Your task to perform on an android device: see creations saved in the google photos Image 0: 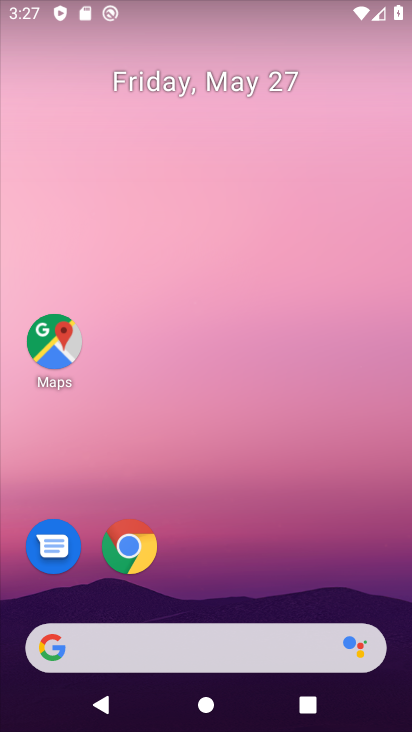
Step 0: drag from (402, 618) to (393, 212)
Your task to perform on an android device: see creations saved in the google photos Image 1: 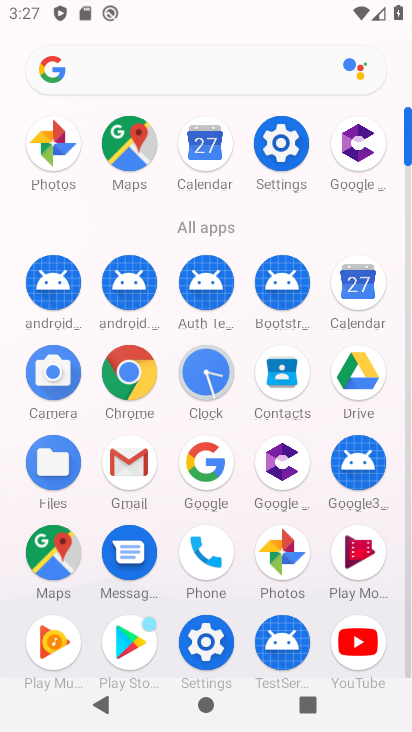
Step 1: click (294, 556)
Your task to perform on an android device: see creations saved in the google photos Image 2: 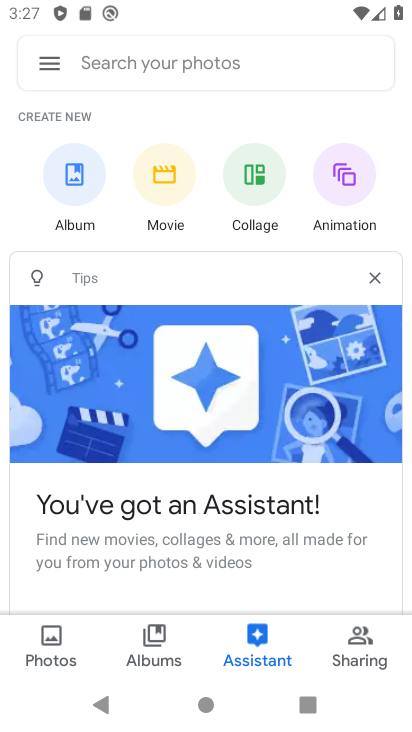
Step 2: click (52, 647)
Your task to perform on an android device: see creations saved in the google photos Image 3: 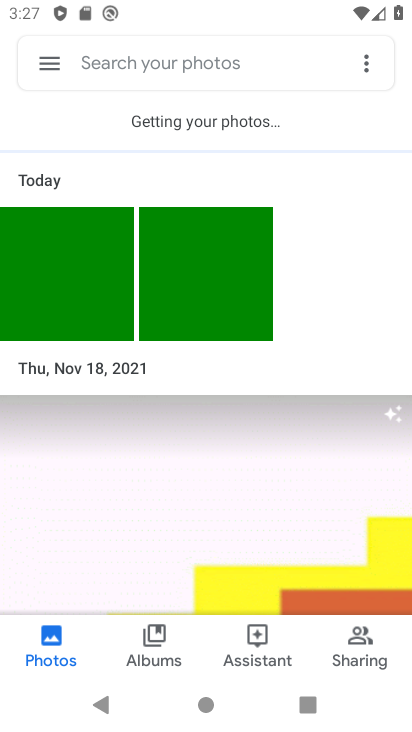
Step 3: click (80, 288)
Your task to perform on an android device: see creations saved in the google photos Image 4: 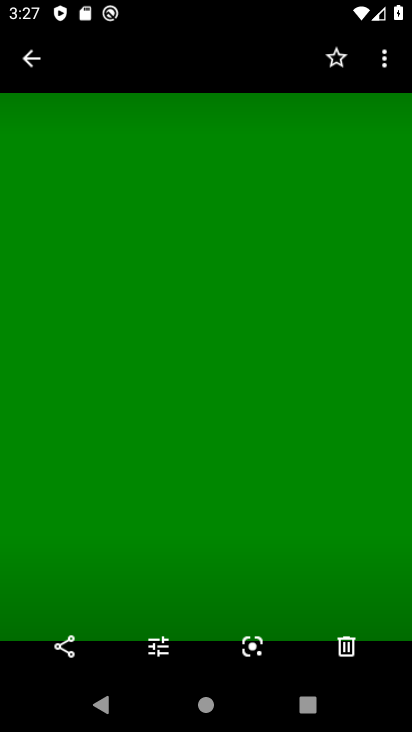
Step 4: click (401, 284)
Your task to perform on an android device: see creations saved in the google photos Image 5: 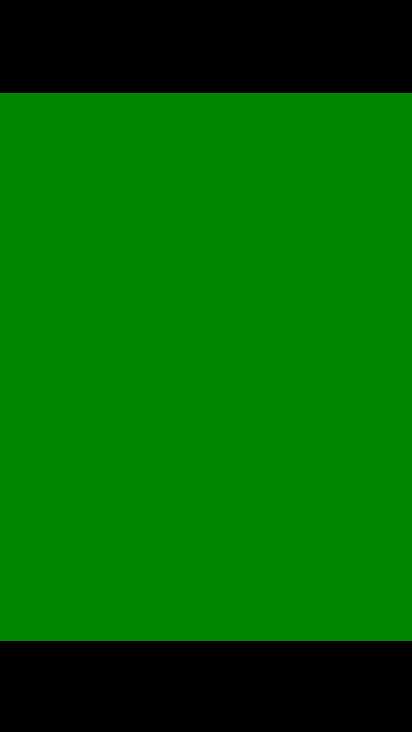
Step 5: click (400, 283)
Your task to perform on an android device: see creations saved in the google photos Image 6: 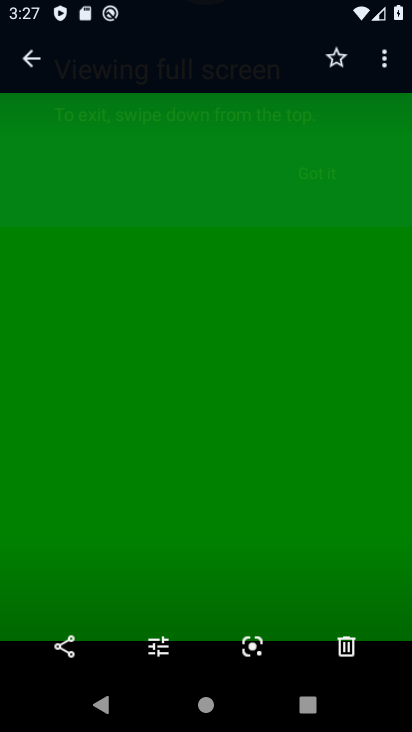
Step 6: click (400, 283)
Your task to perform on an android device: see creations saved in the google photos Image 7: 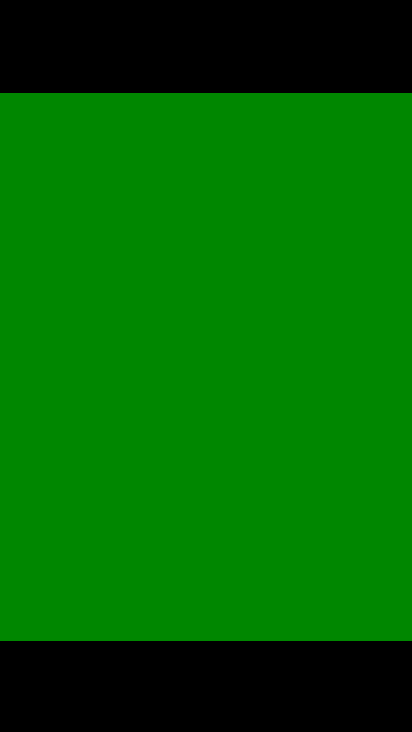
Step 7: click (29, 62)
Your task to perform on an android device: see creations saved in the google photos Image 8: 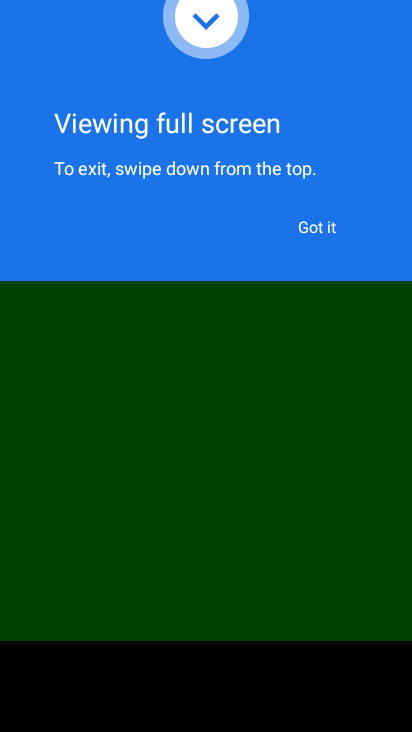
Step 8: click (318, 221)
Your task to perform on an android device: see creations saved in the google photos Image 9: 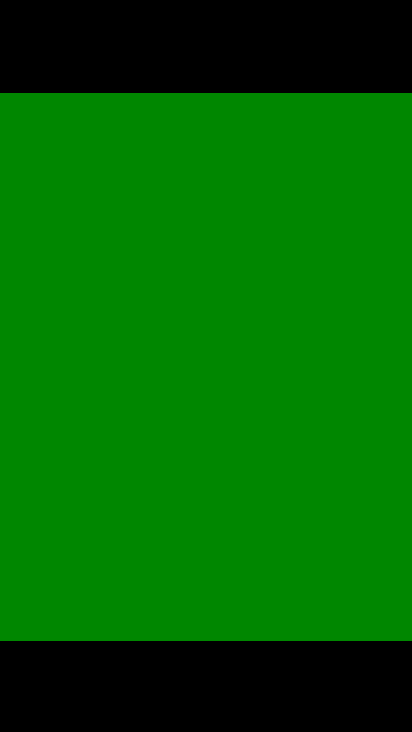
Step 9: click (115, 227)
Your task to perform on an android device: see creations saved in the google photos Image 10: 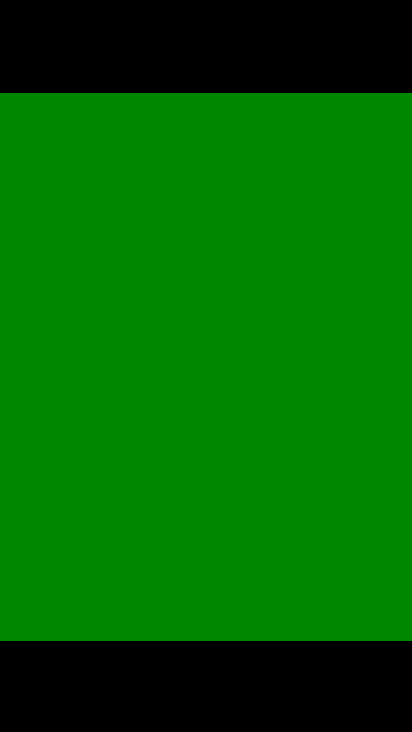
Step 10: click (40, 70)
Your task to perform on an android device: see creations saved in the google photos Image 11: 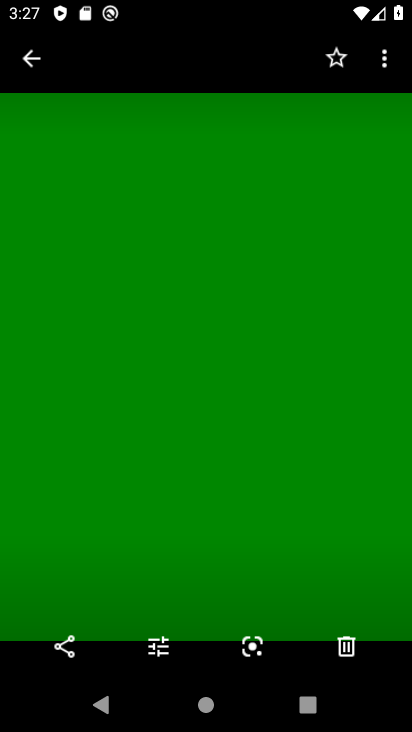
Step 11: click (32, 58)
Your task to perform on an android device: see creations saved in the google photos Image 12: 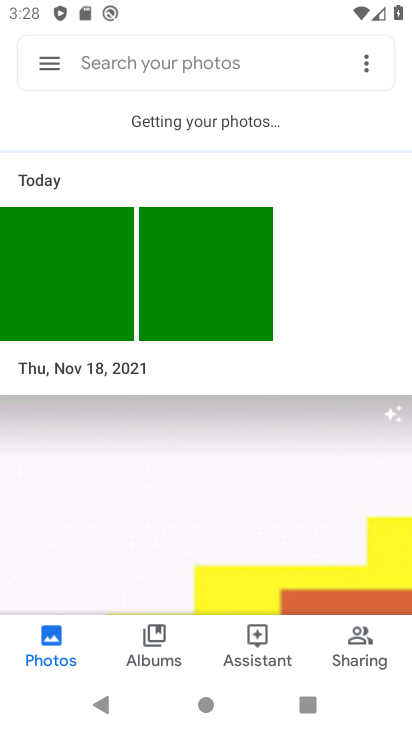
Step 12: task complete